Your task to perform on an android device: toggle sleep mode Image 0: 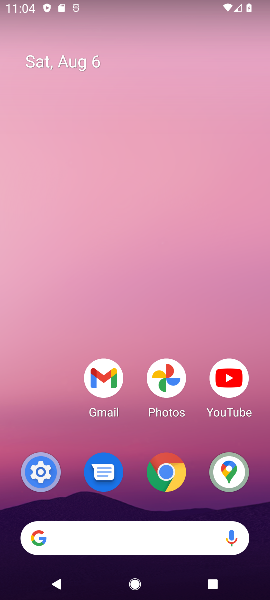
Step 0: drag from (192, 527) to (103, 22)
Your task to perform on an android device: toggle sleep mode Image 1: 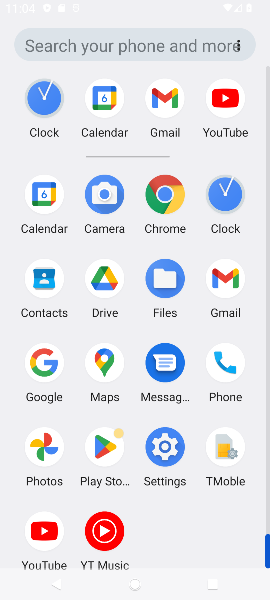
Step 1: drag from (172, 402) to (125, 72)
Your task to perform on an android device: toggle sleep mode Image 2: 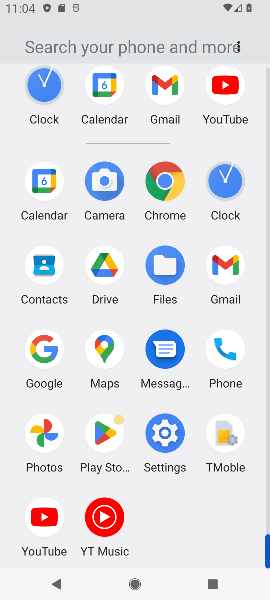
Step 2: click (165, 437)
Your task to perform on an android device: toggle sleep mode Image 3: 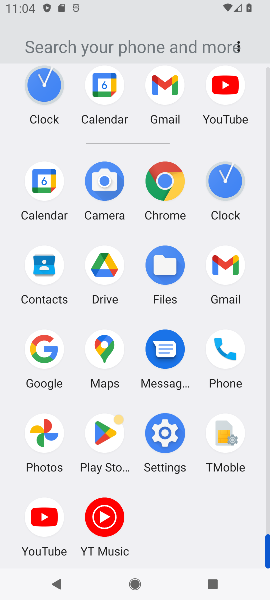
Step 3: click (165, 436)
Your task to perform on an android device: toggle sleep mode Image 4: 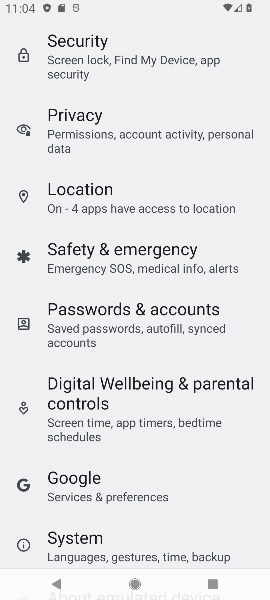
Step 4: drag from (95, 207) to (111, 475)
Your task to perform on an android device: toggle sleep mode Image 5: 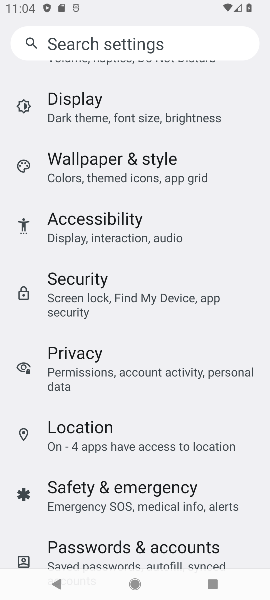
Step 5: drag from (96, 198) to (117, 439)
Your task to perform on an android device: toggle sleep mode Image 6: 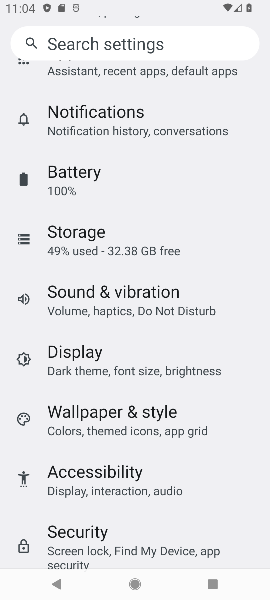
Step 6: drag from (99, 190) to (165, 530)
Your task to perform on an android device: toggle sleep mode Image 7: 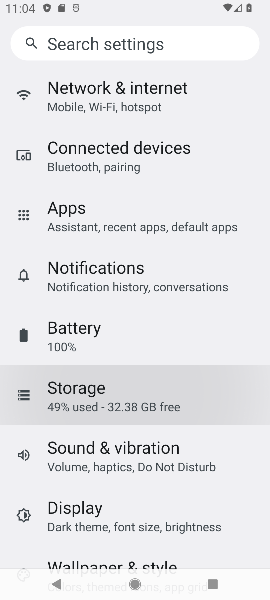
Step 7: drag from (124, 217) to (151, 485)
Your task to perform on an android device: toggle sleep mode Image 8: 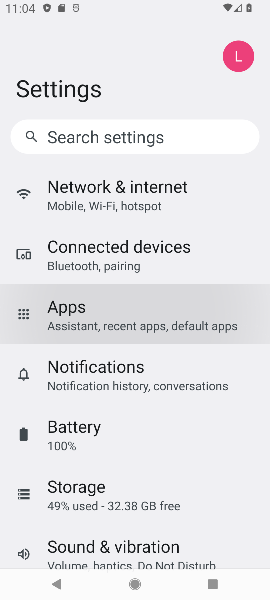
Step 8: drag from (137, 159) to (149, 423)
Your task to perform on an android device: toggle sleep mode Image 9: 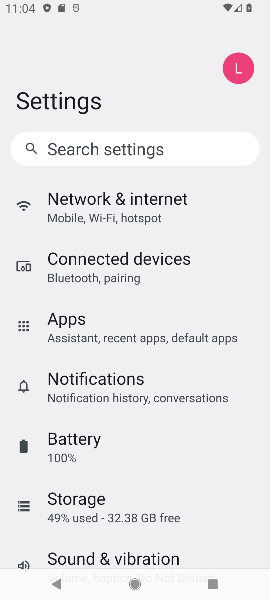
Step 9: drag from (115, 152) to (134, 432)
Your task to perform on an android device: toggle sleep mode Image 10: 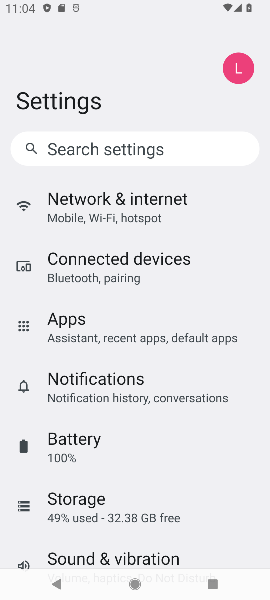
Step 10: drag from (132, 484) to (93, 280)
Your task to perform on an android device: toggle sleep mode Image 11: 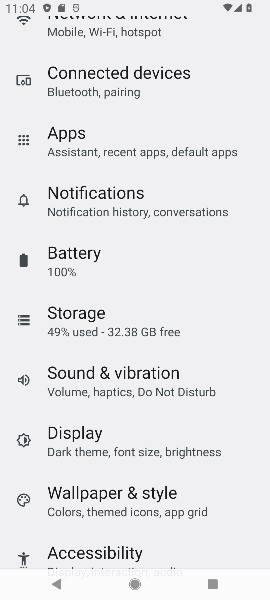
Step 11: drag from (120, 466) to (122, 307)
Your task to perform on an android device: toggle sleep mode Image 12: 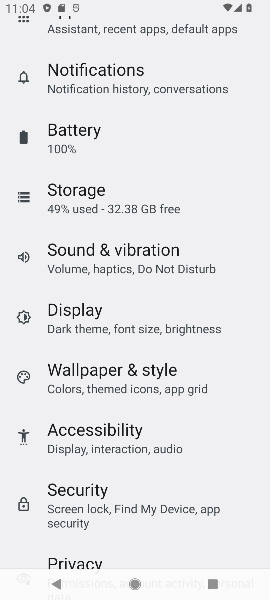
Step 12: drag from (182, 438) to (162, 303)
Your task to perform on an android device: toggle sleep mode Image 13: 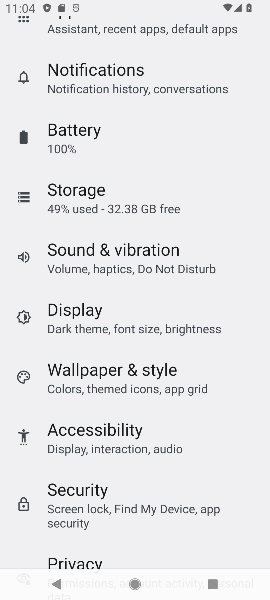
Step 13: click (64, 310)
Your task to perform on an android device: toggle sleep mode Image 14: 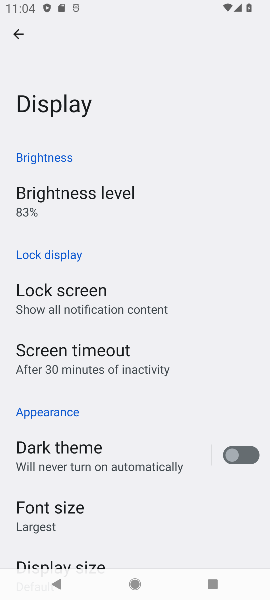
Step 14: click (73, 353)
Your task to perform on an android device: toggle sleep mode Image 15: 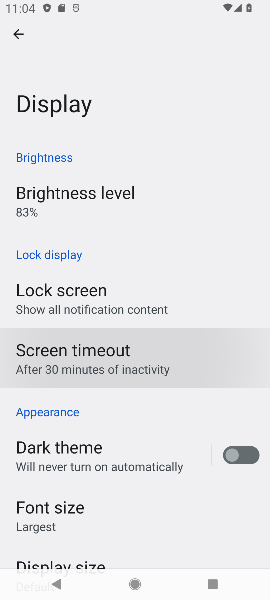
Step 15: click (73, 353)
Your task to perform on an android device: toggle sleep mode Image 16: 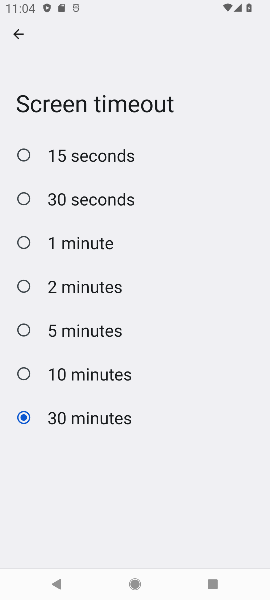
Step 16: click (26, 323)
Your task to perform on an android device: toggle sleep mode Image 17: 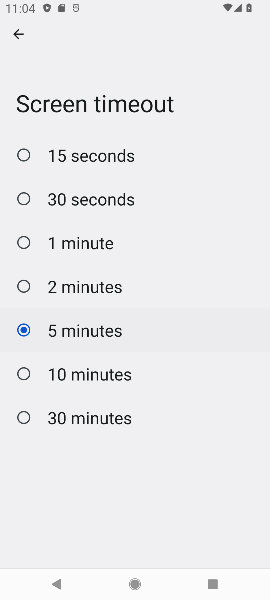
Step 17: task complete